Your task to perform on an android device: Go to display settings Image 0: 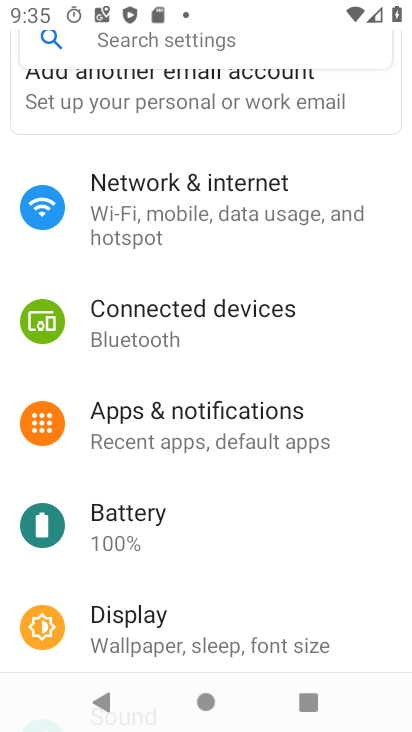
Step 0: drag from (189, 587) to (230, 417)
Your task to perform on an android device: Go to display settings Image 1: 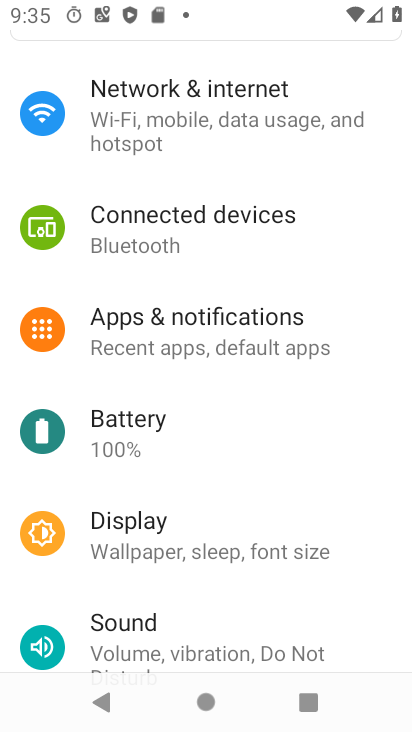
Step 1: click (162, 530)
Your task to perform on an android device: Go to display settings Image 2: 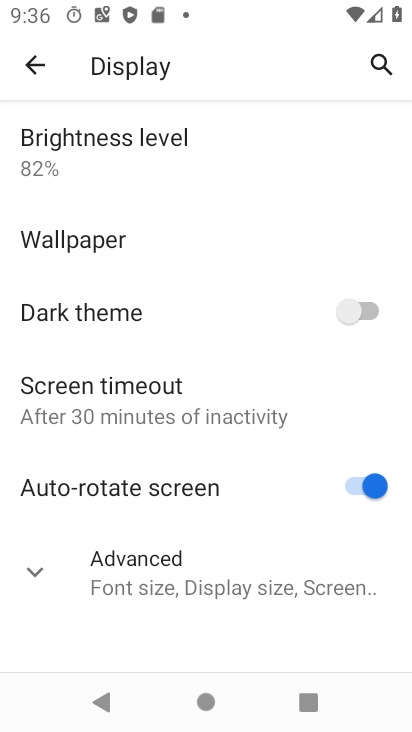
Step 2: task complete